Your task to perform on an android device: refresh tabs in the chrome app Image 0: 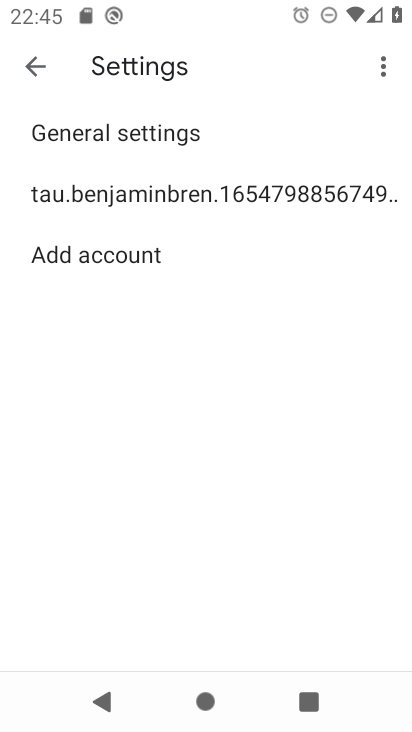
Step 0: press home button
Your task to perform on an android device: refresh tabs in the chrome app Image 1: 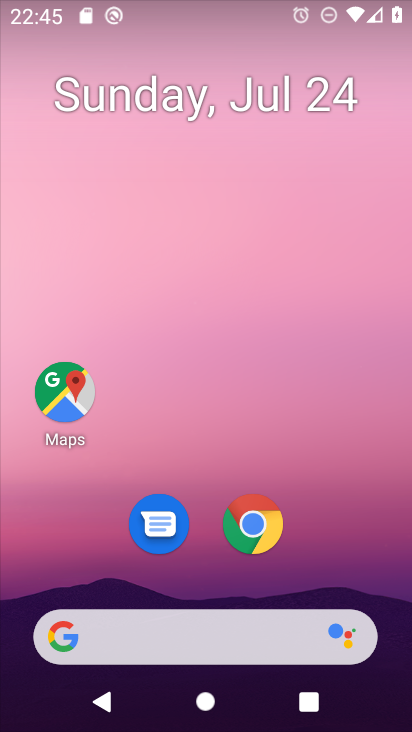
Step 1: click (247, 536)
Your task to perform on an android device: refresh tabs in the chrome app Image 2: 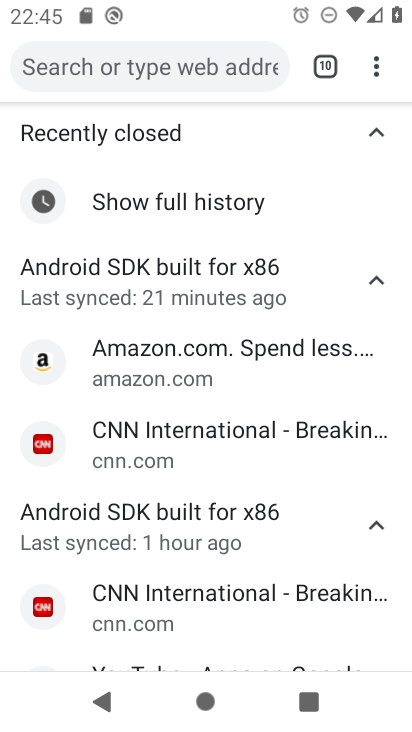
Step 2: click (373, 81)
Your task to perform on an android device: refresh tabs in the chrome app Image 3: 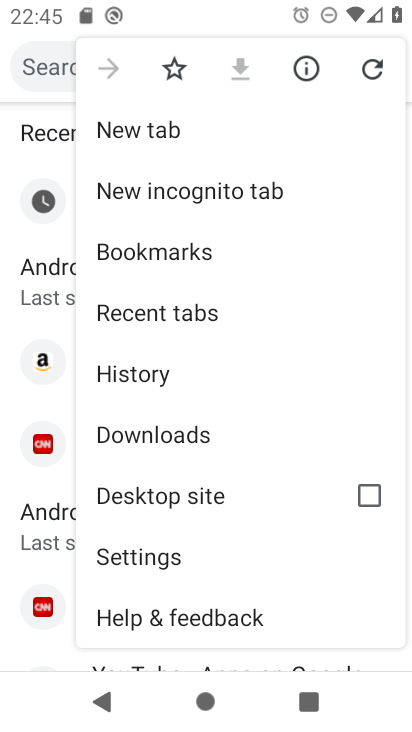
Step 3: click (373, 72)
Your task to perform on an android device: refresh tabs in the chrome app Image 4: 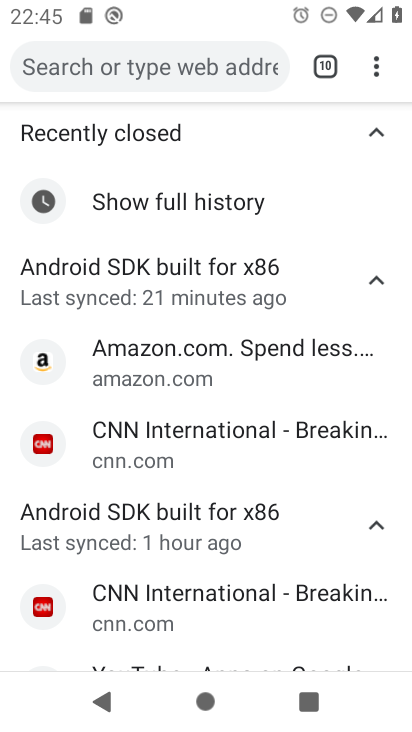
Step 4: task complete